Your task to perform on an android device: toggle javascript in the chrome app Image 0: 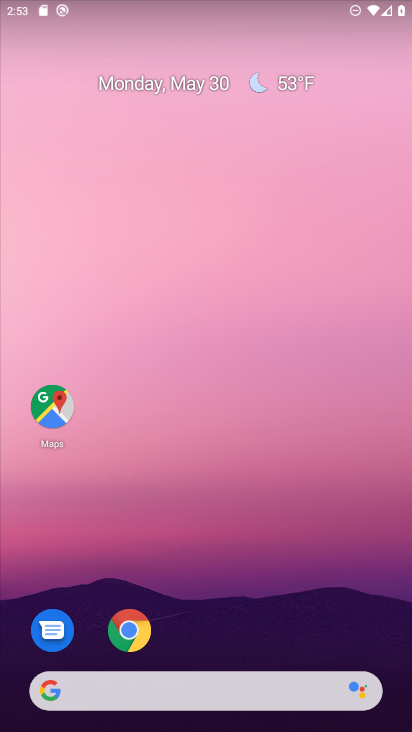
Step 0: click (135, 629)
Your task to perform on an android device: toggle javascript in the chrome app Image 1: 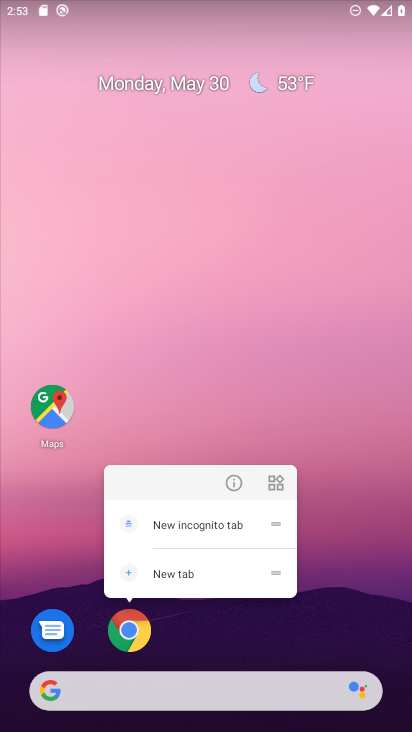
Step 1: click (135, 625)
Your task to perform on an android device: toggle javascript in the chrome app Image 2: 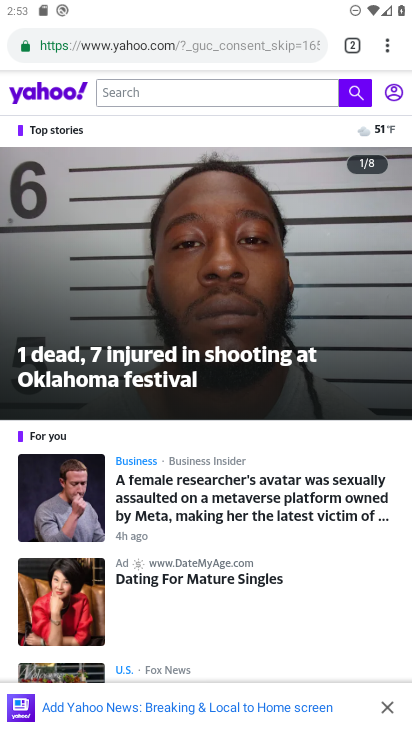
Step 2: drag from (391, 40) to (244, 538)
Your task to perform on an android device: toggle javascript in the chrome app Image 3: 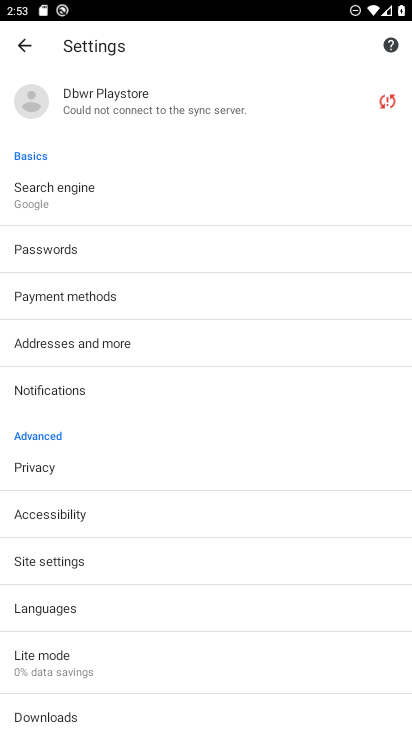
Step 3: click (87, 566)
Your task to perform on an android device: toggle javascript in the chrome app Image 4: 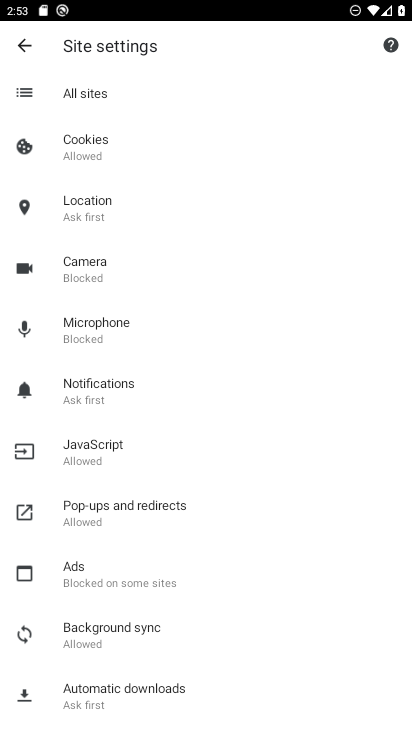
Step 4: click (114, 458)
Your task to perform on an android device: toggle javascript in the chrome app Image 5: 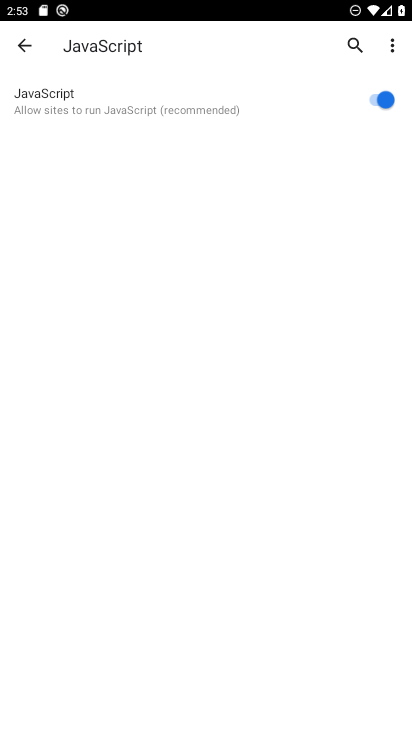
Step 5: click (388, 93)
Your task to perform on an android device: toggle javascript in the chrome app Image 6: 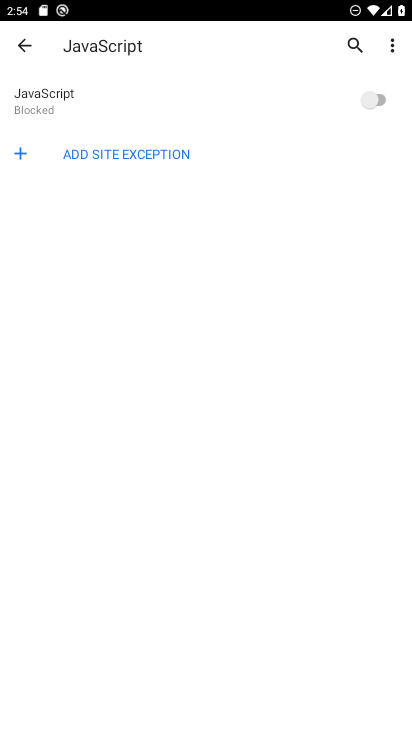
Step 6: task complete